Your task to perform on an android device: Add usb-a to the cart on newegg.com Image 0: 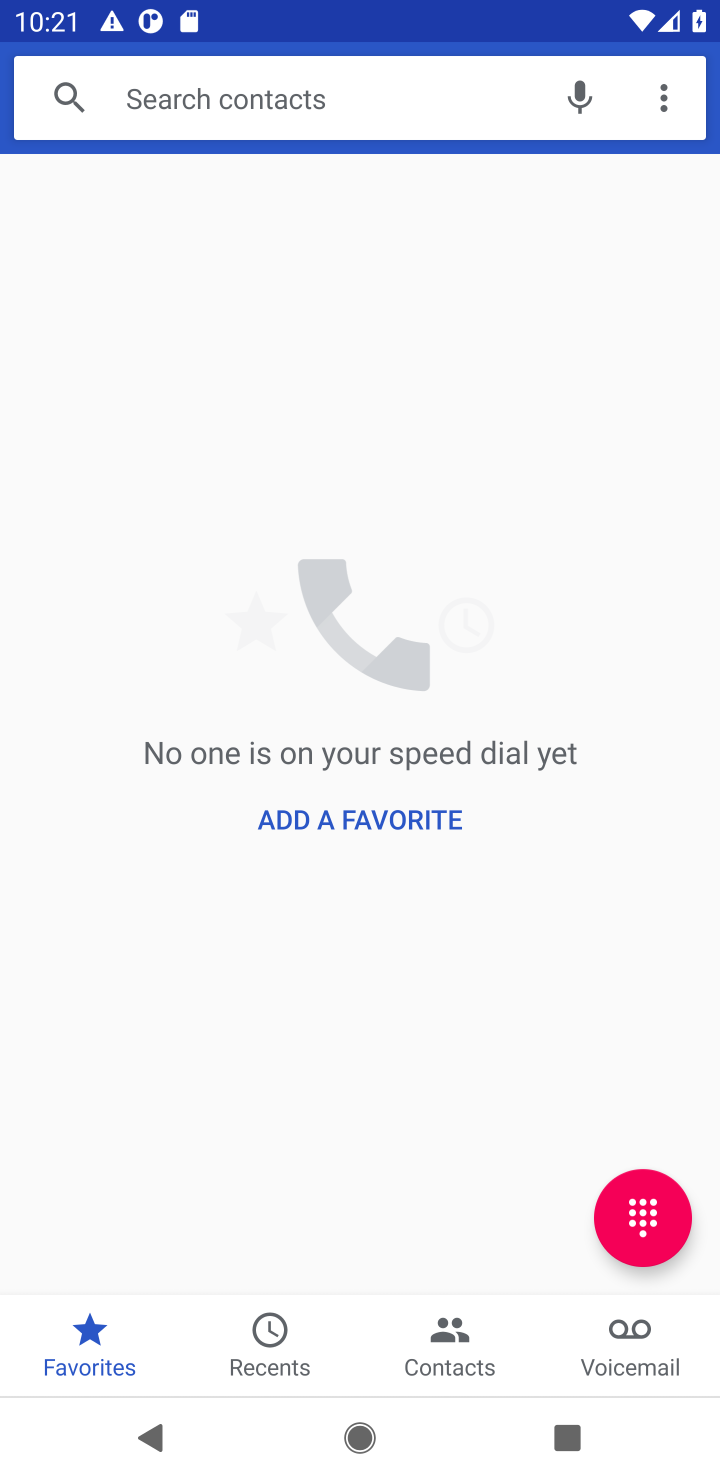
Step 0: press home button
Your task to perform on an android device: Add usb-a to the cart on newegg.com Image 1: 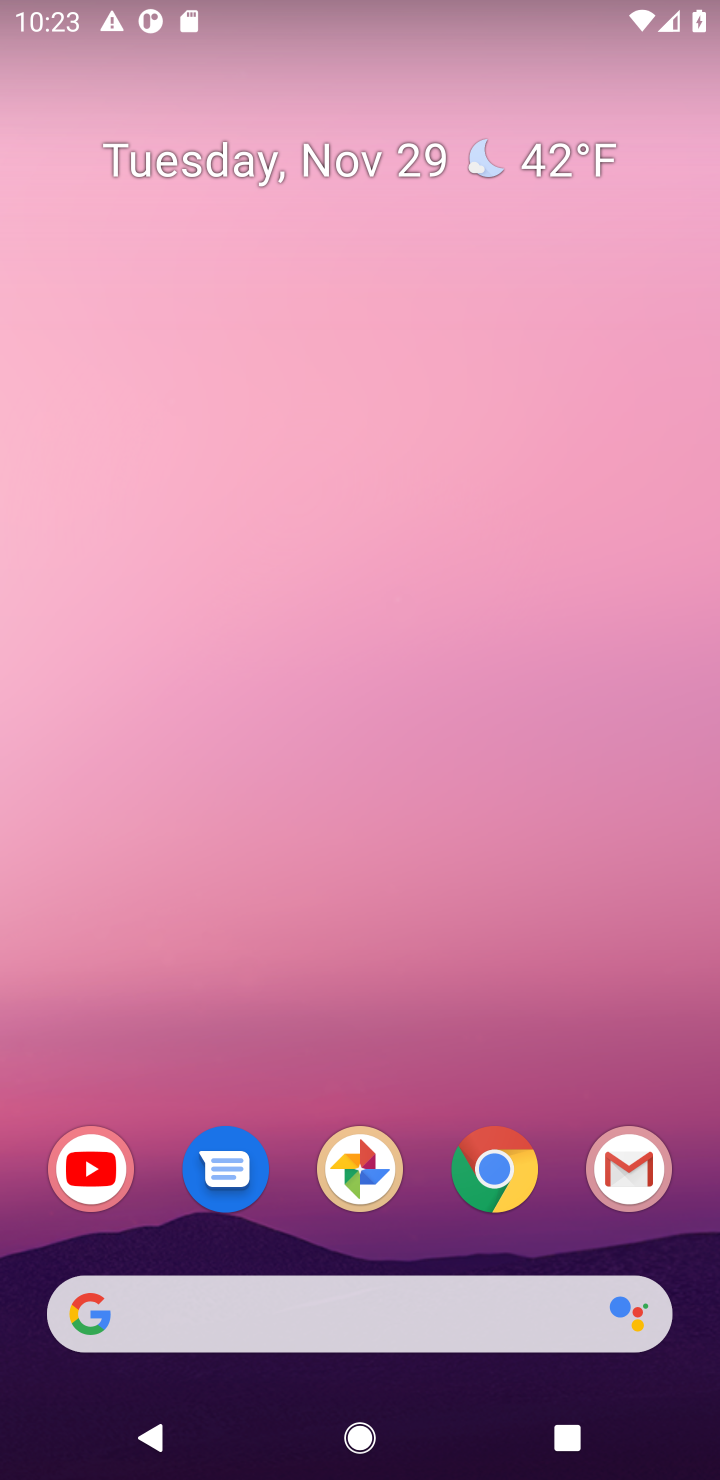
Step 1: click (424, 1313)
Your task to perform on an android device: Add usb-a to the cart on newegg.com Image 2: 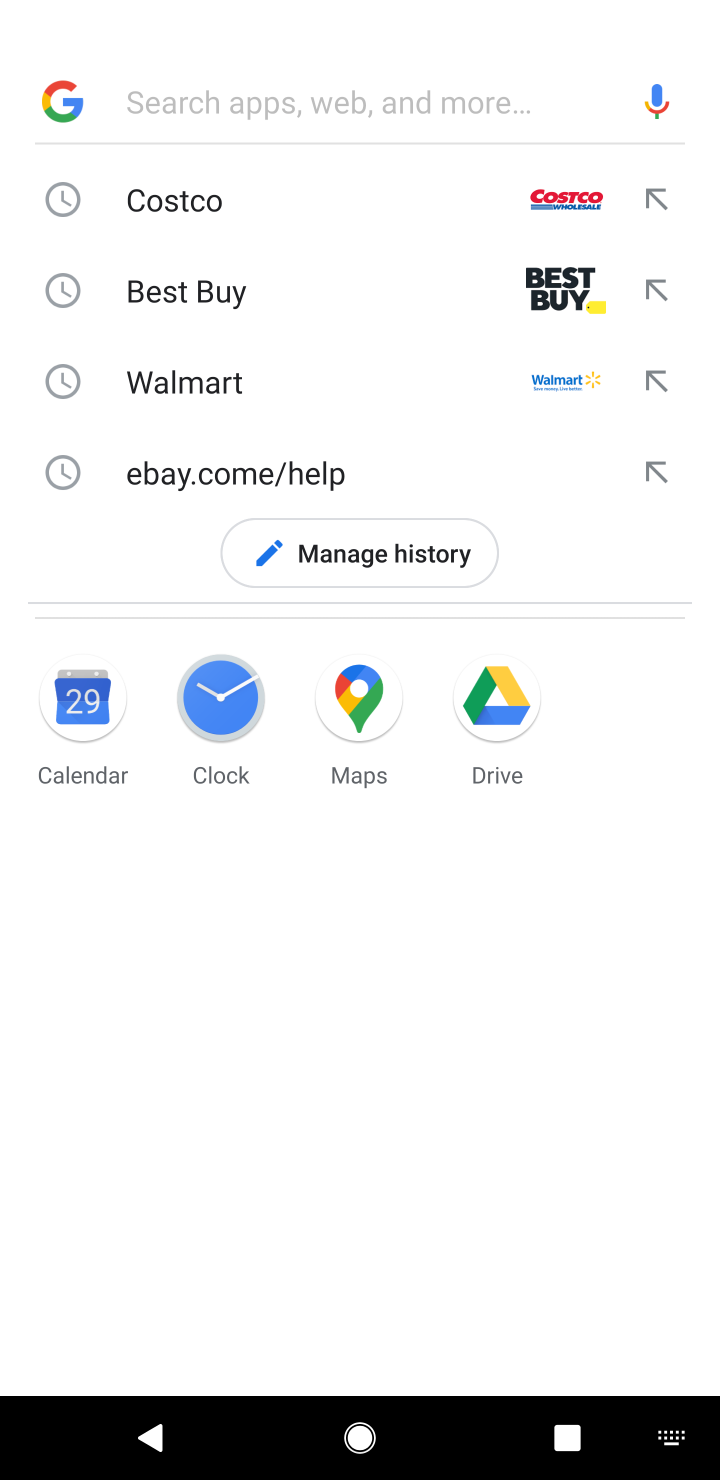
Step 2: type "newegg"
Your task to perform on an android device: Add usb-a to the cart on newegg.com Image 3: 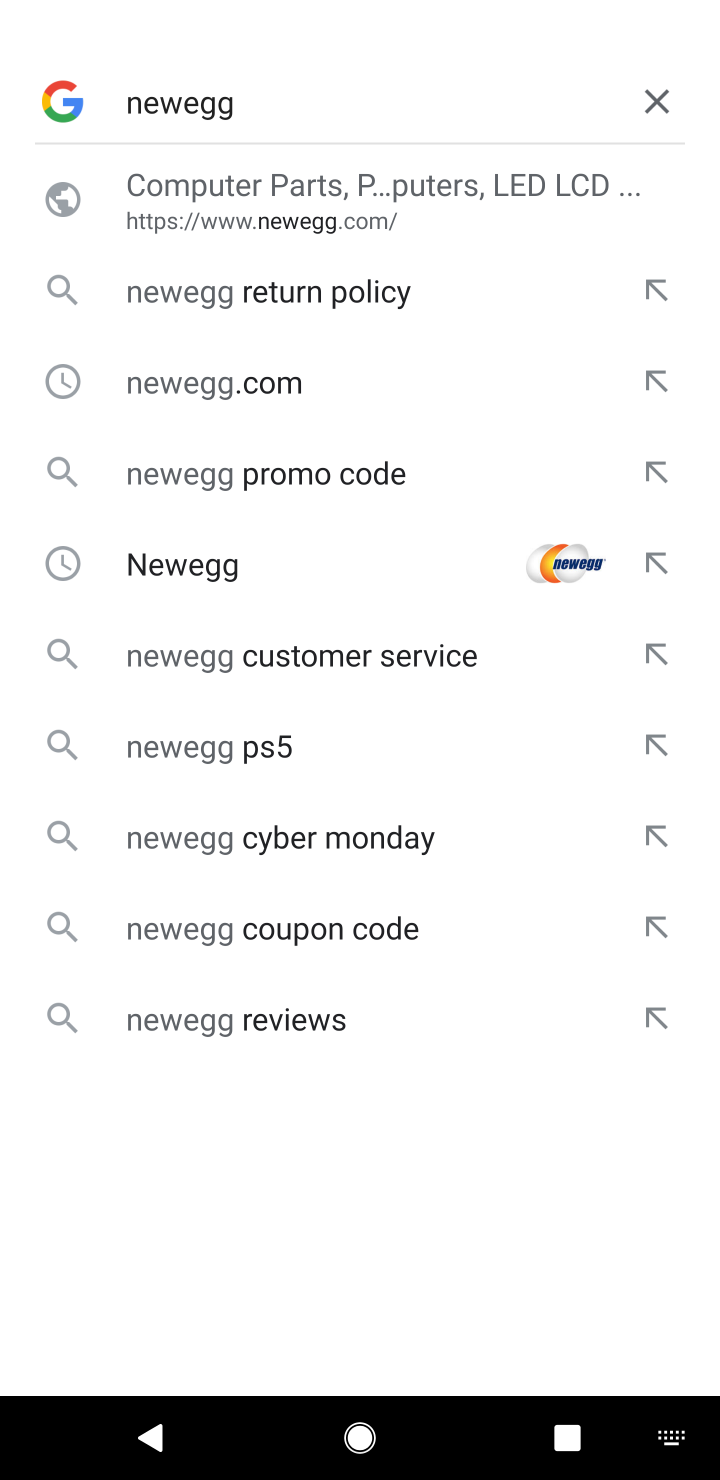
Step 3: click (257, 200)
Your task to perform on an android device: Add usb-a to the cart on newegg.com Image 4: 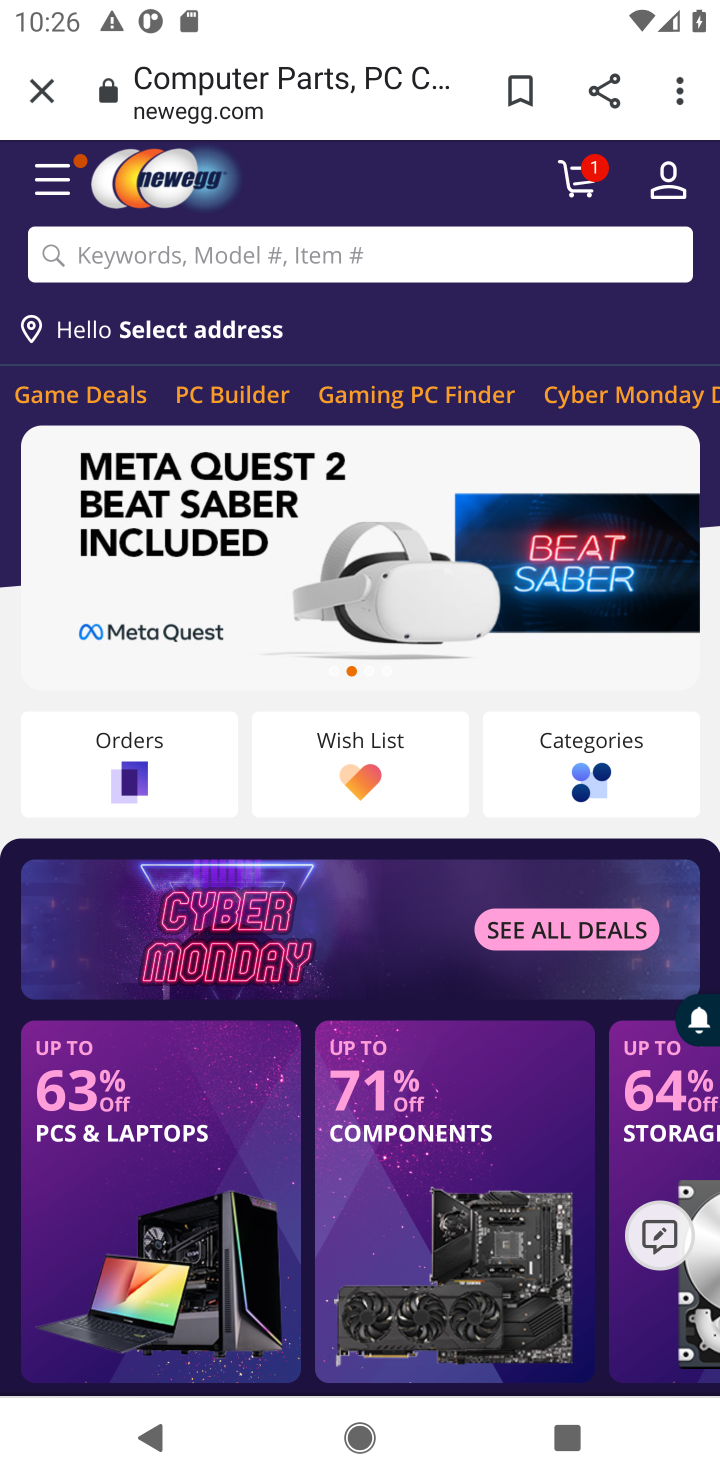
Step 4: task complete